Your task to perform on an android device: Go to Android settings Image 0: 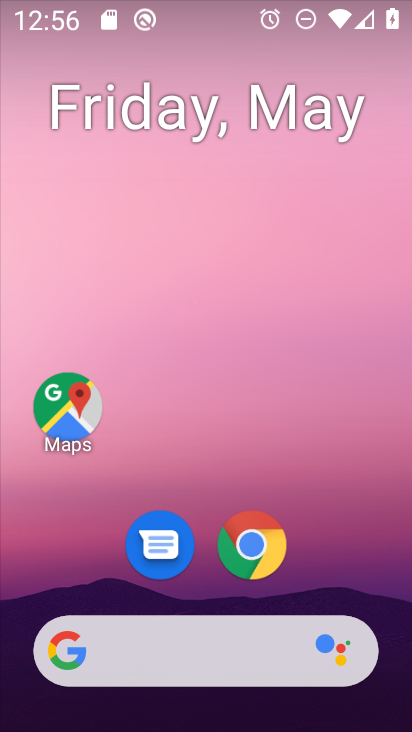
Step 0: drag from (309, 578) to (290, 257)
Your task to perform on an android device: Go to Android settings Image 1: 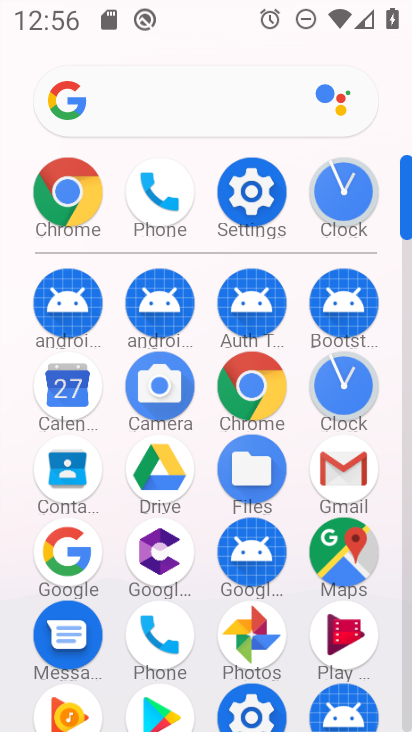
Step 1: click (244, 190)
Your task to perform on an android device: Go to Android settings Image 2: 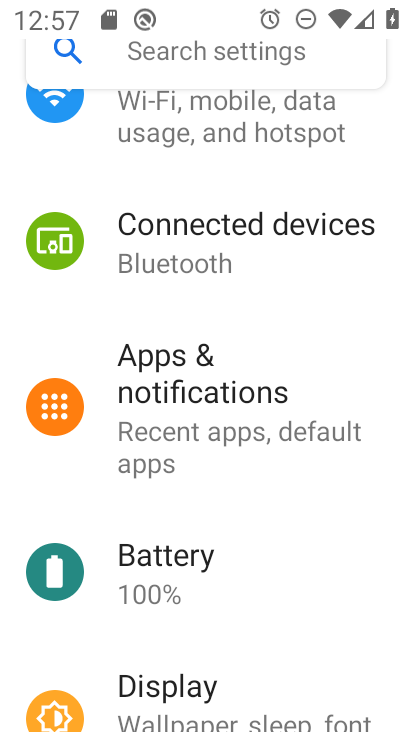
Step 2: click (219, 372)
Your task to perform on an android device: Go to Android settings Image 3: 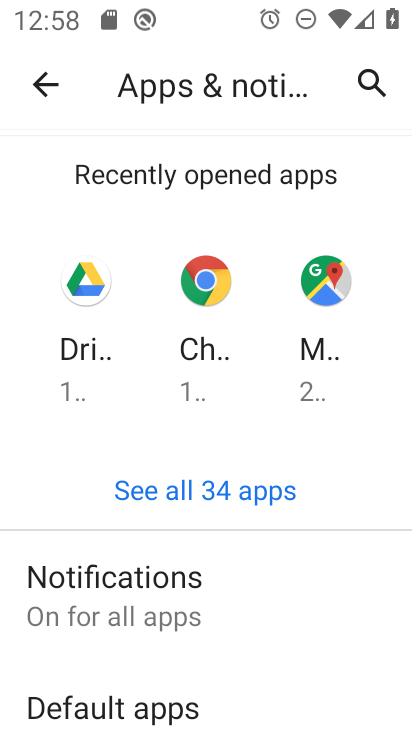
Step 3: click (26, 82)
Your task to perform on an android device: Go to Android settings Image 4: 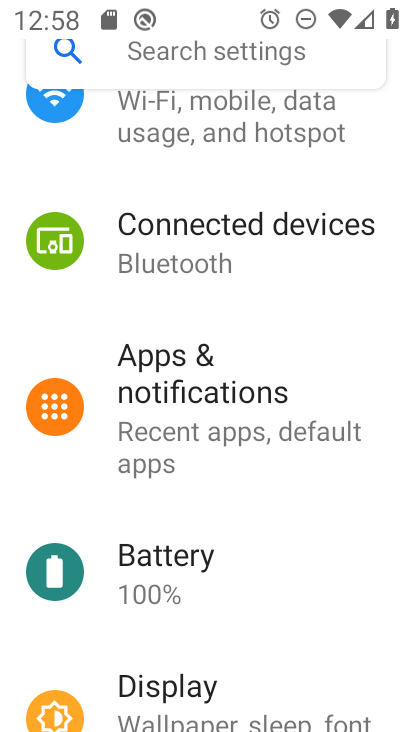
Step 4: task complete